Your task to perform on an android device: View the shopping cart on bestbuy.com. Image 0: 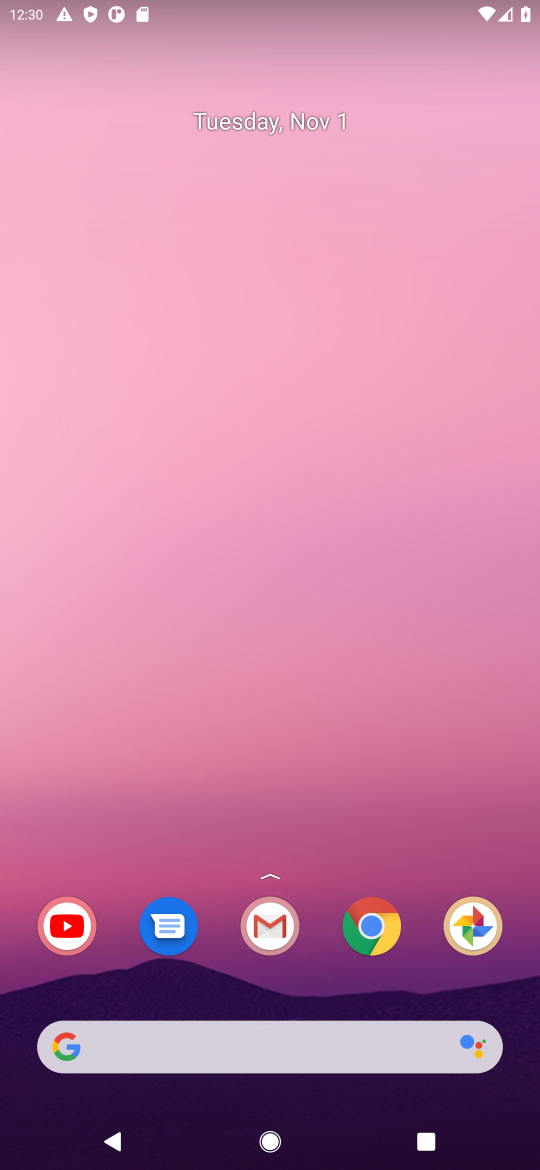
Step 0: click (385, 923)
Your task to perform on an android device: View the shopping cart on bestbuy.com. Image 1: 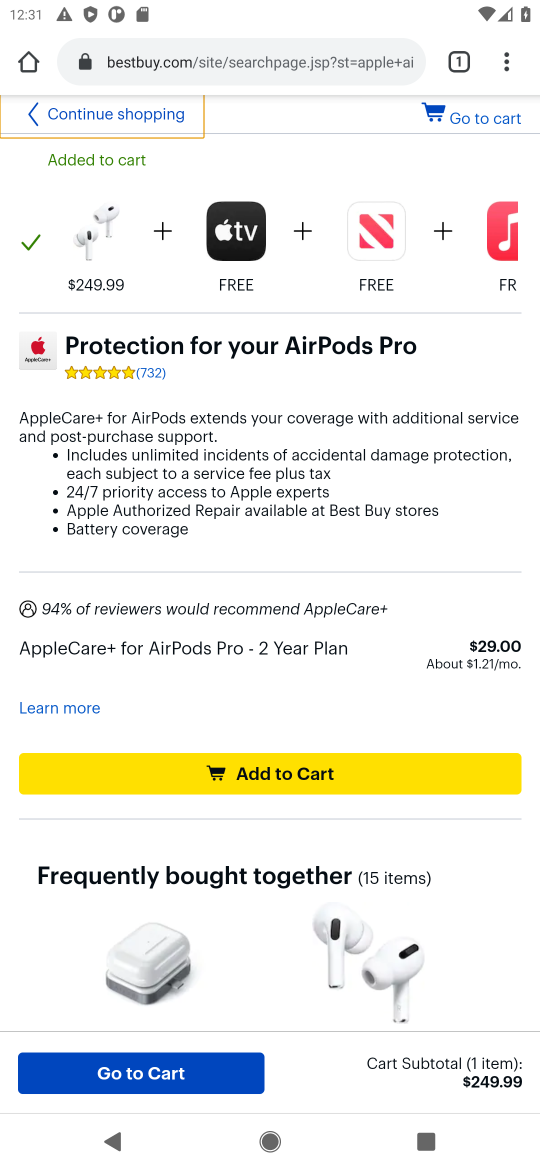
Step 1: click (477, 117)
Your task to perform on an android device: View the shopping cart on bestbuy.com. Image 2: 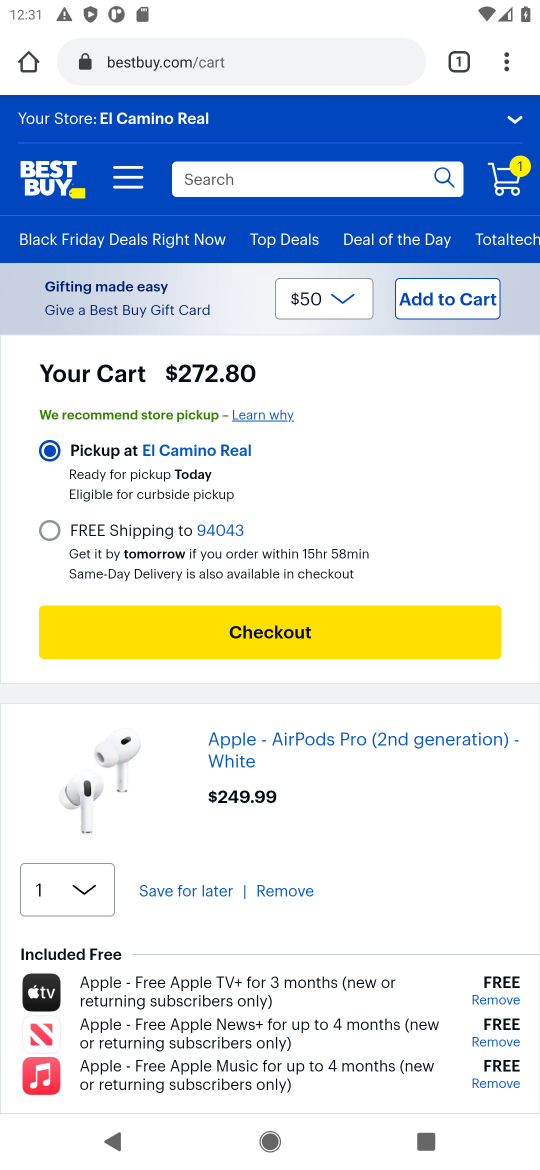
Step 2: task complete